Your task to perform on an android device: search for starred emails in the gmail app Image 0: 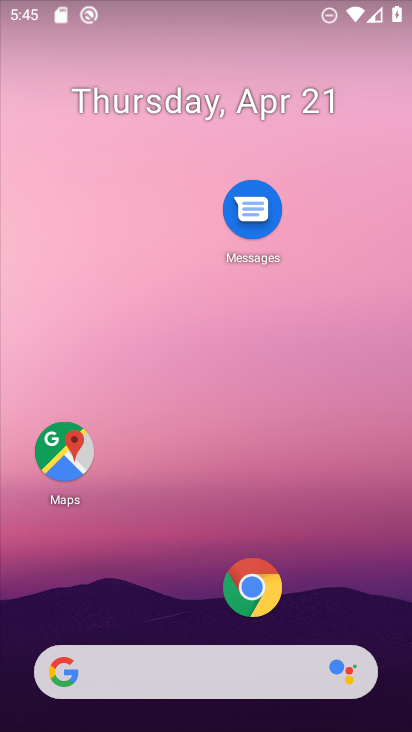
Step 0: click (70, 437)
Your task to perform on an android device: search for starred emails in the gmail app Image 1: 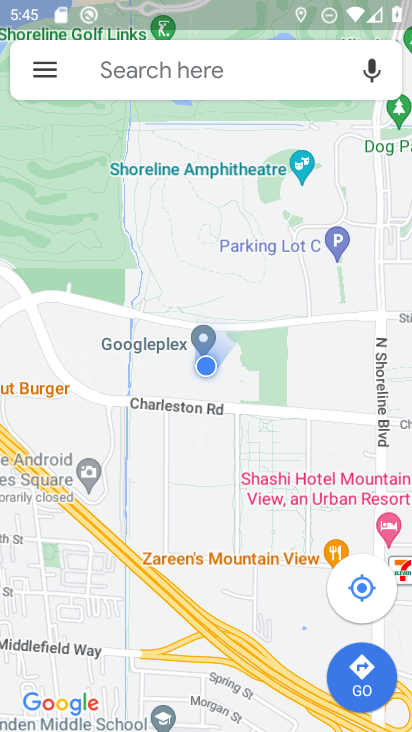
Step 1: click (38, 65)
Your task to perform on an android device: search for starred emails in the gmail app Image 2: 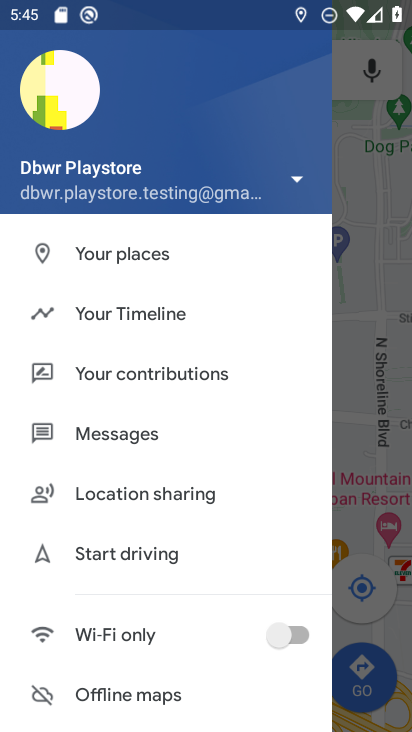
Step 2: press home button
Your task to perform on an android device: search for starred emails in the gmail app Image 3: 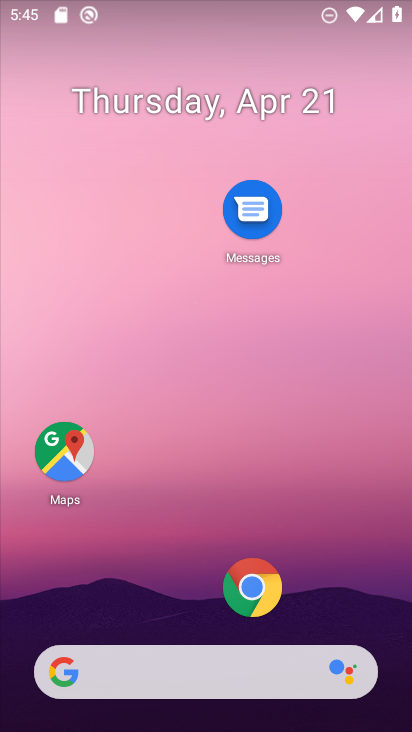
Step 3: drag from (195, 618) to (216, 26)
Your task to perform on an android device: search for starred emails in the gmail app Image 4: 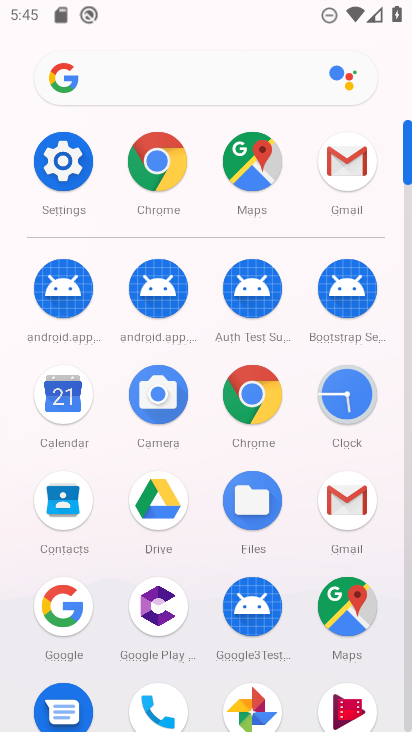
Step 4: click (346, 154)
Your task to perform on an android device: search for starred emails in the gmail app Image 5: 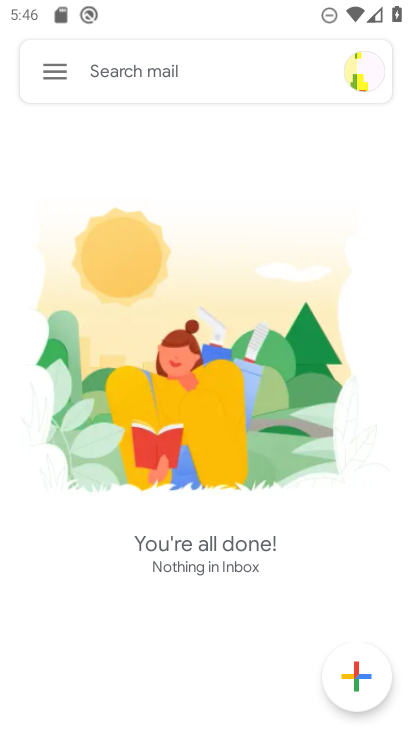
Step 5: click (46, 66)
Your task to perform on an android device: search for starred emails in the gmail app Image 6: 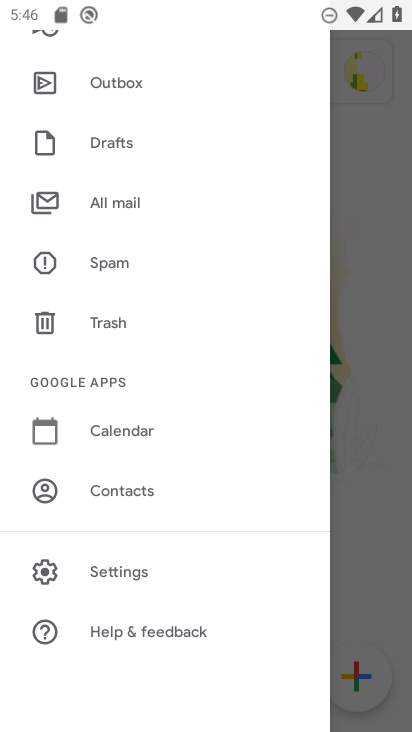
Step 6: drag from (134, 119) to (72, 634)
Your task to perform on an android device: search for starred emails in the gmail app Image 7: 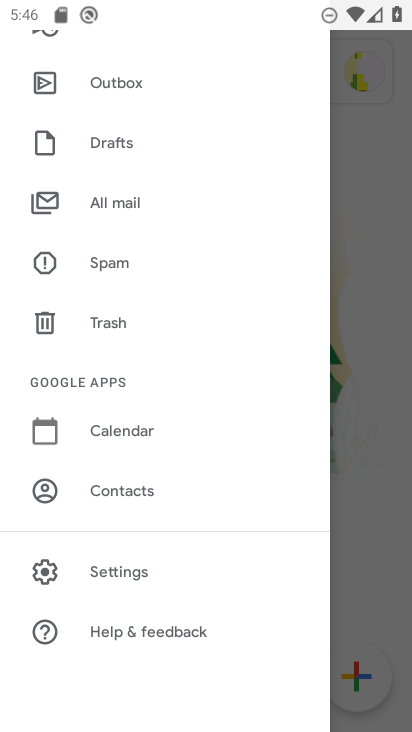
Step 7: drag from (73, 137) to (70, 663)
Your task to perform on an android device: search for starred emails in the gmail app Image 8: 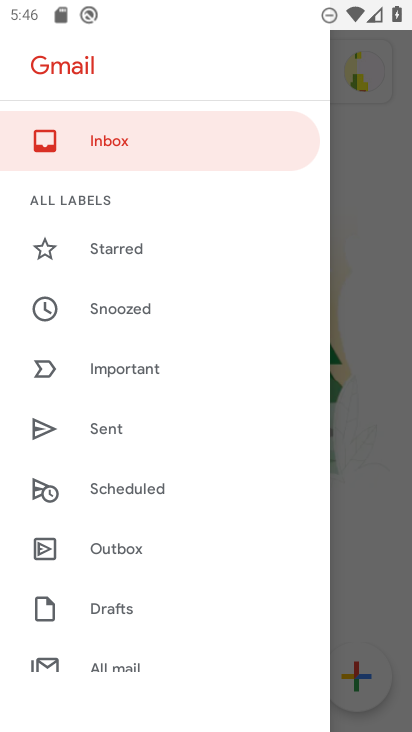
Step 8: click (71, 246)
Your task to perform on an android device: search for starred emails in the gmail app Image 9: 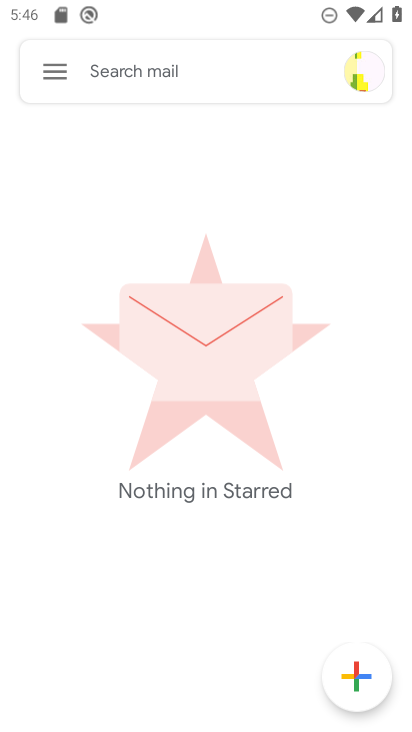
Step 9: task complete